Your task to perform on an android device: Open Youtube and go to "Your channel" Image 0: 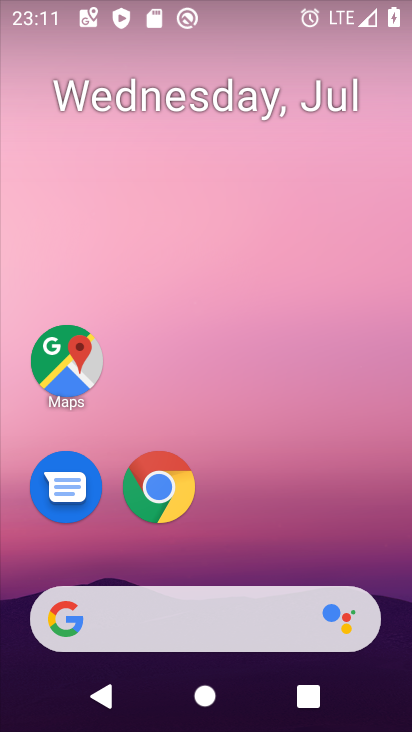
Step 0: drag from (229, 424) to (284, 71)
Your task to perform on an android device: Open Youtube and go to "Your channel" Image 1: 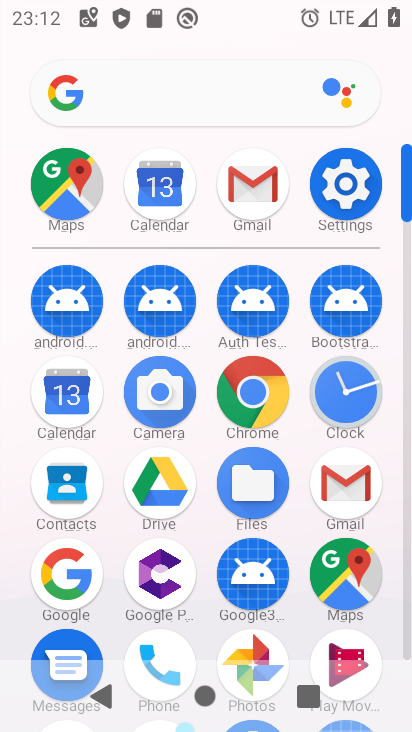
Step 1: drag from (263, 614) to (273, 127)
Your task to perform on an android device: Open Youtube and go to "Your channel" Image 2: 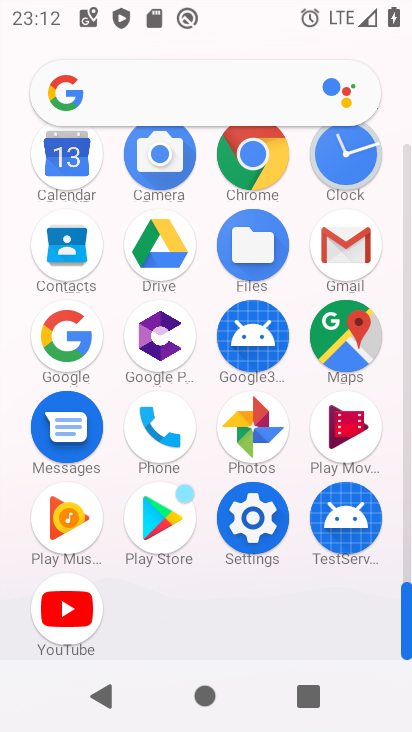
Step 2: click (73, 605)
Your task to perform on an android device: Open Youtube and go to "Your channel" Image 3: 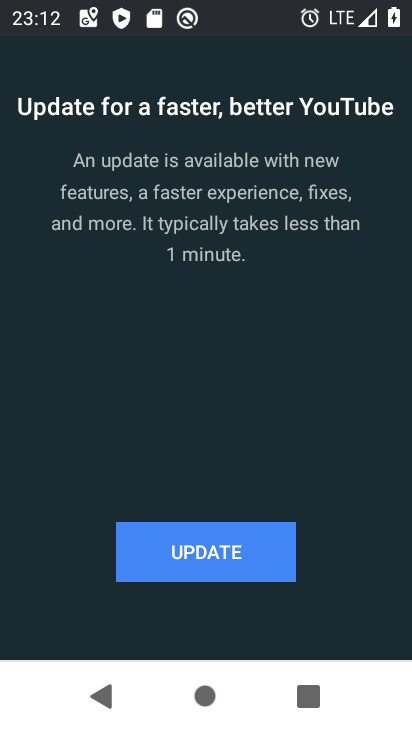
Step 3: task complete